Your task to perform on an android device: Open the stopwatch Image 0: 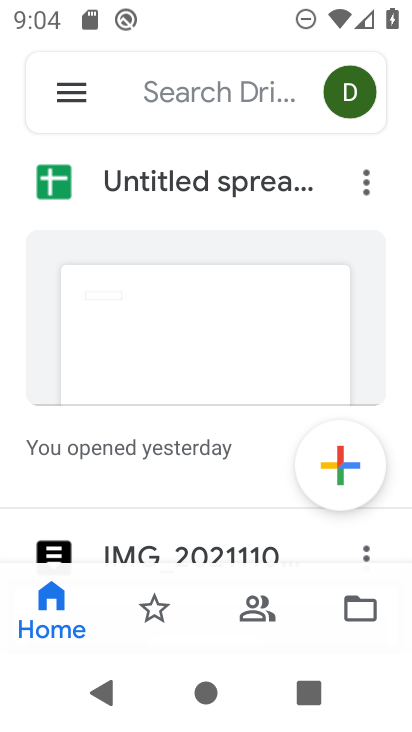
Step 0: press home button
Your task to perform on an android device: Open the stopwatch Image 1: 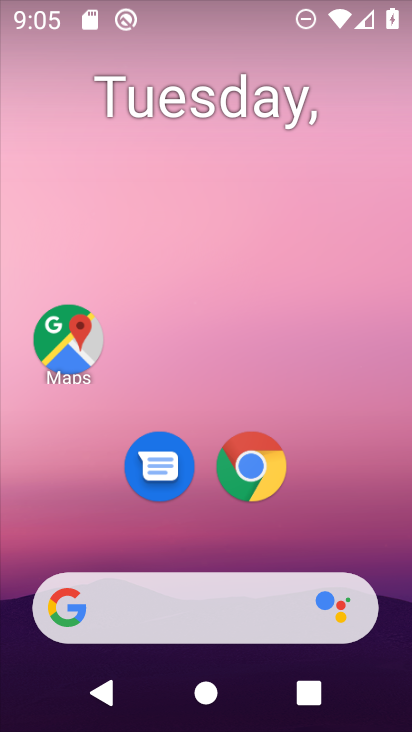
Step 1: drag from (234, 537) to (263, 34)
Your task to perform on an android device: Open the stopwatch Image 2: 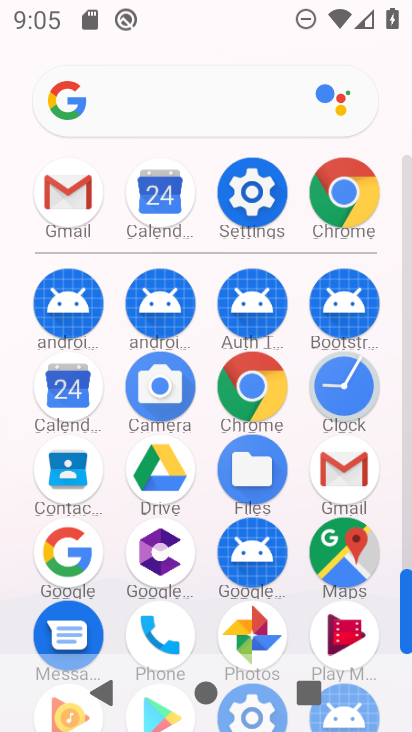
Step 2: click (353, 379)
Your task to perform on an android device: Open the stopwatch Image 3: 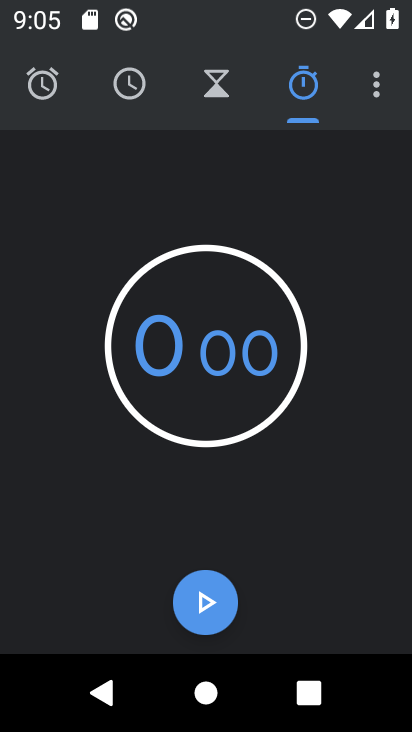
Step 3: click (203, 599)
Your task to perform on an android device: Open the stopwatch Image 4: 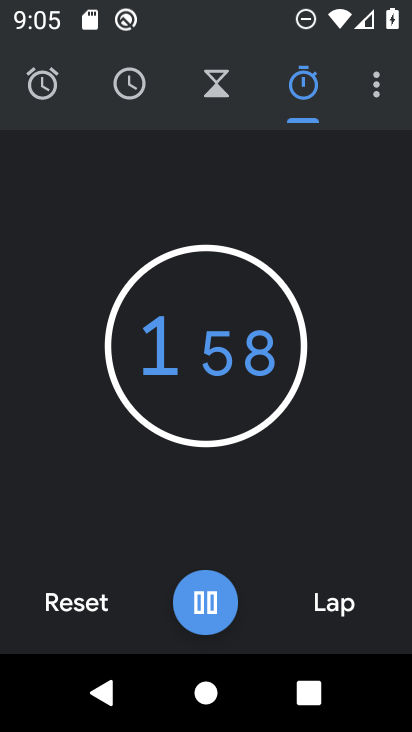
Step 4: task complete